Your task to perform on an android device: Open internet settings Image 0: 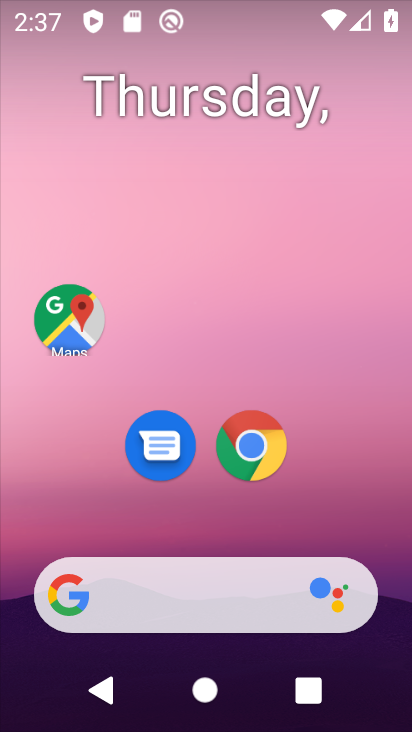
Step 0: drag from (342, 489) to (311, 66)
Your task to perform on an android device: Open internet settings Image 1: 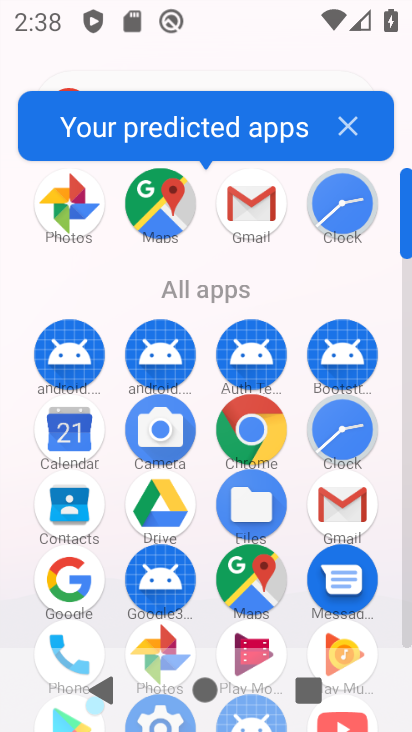
Step 1: drag from (301, 416) to (259, 126)
Your task to perform on an android device: Open internet settings Image 2: 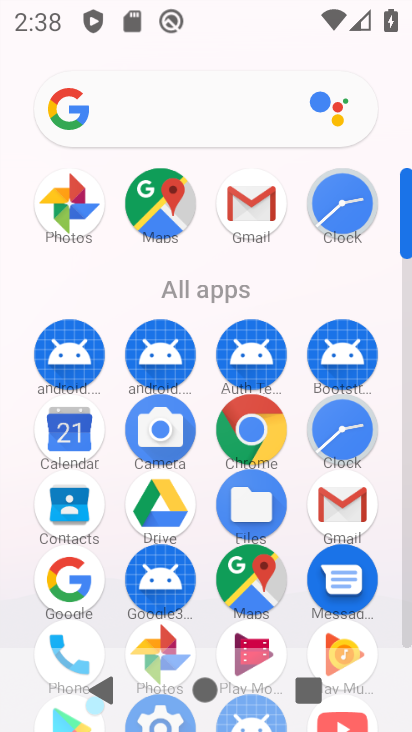
Step 2: drag from (294, 393) to (291, 169)
Your task to perform on an android device: Open internet settings Image 3: 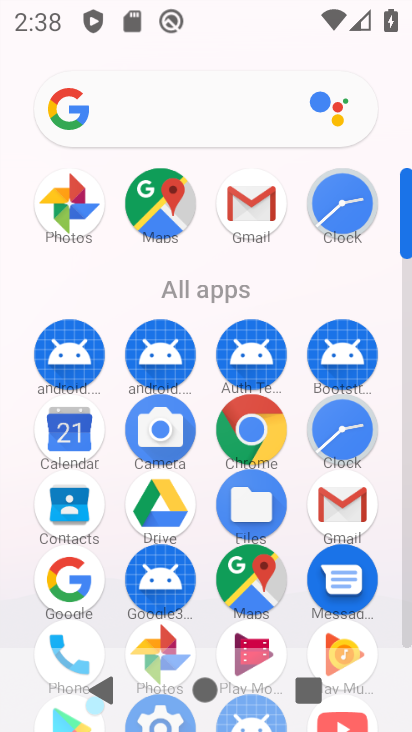
Step 3: drag from (312, 216) to (344, 14)
Your task to perform on an android device: Open internet settings Image 4: 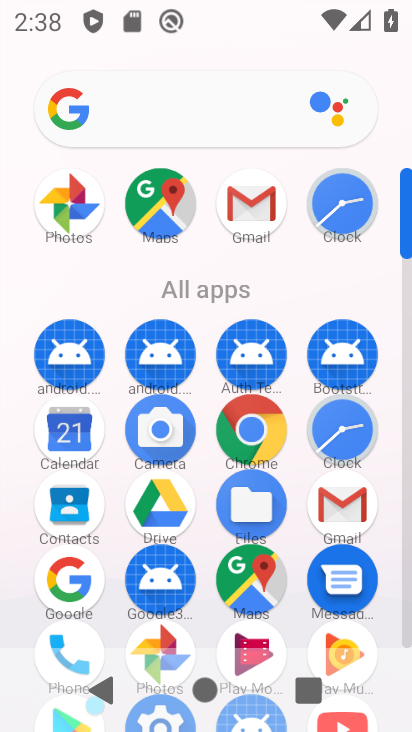
Step 4: drag from (300, 552) to (324, 91)
Your task to perform on an android device: Open internet settings Image 5: 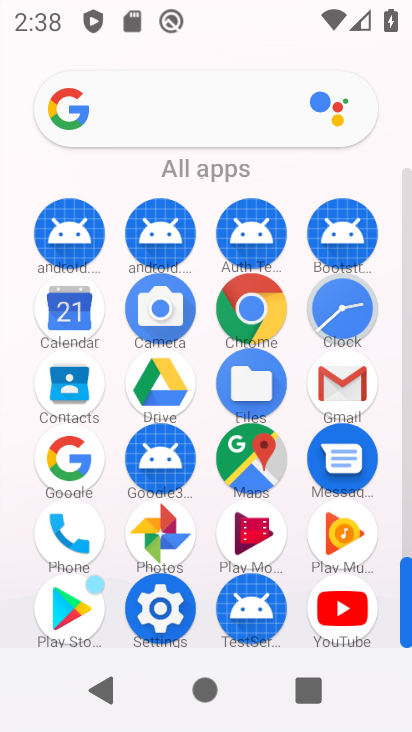
Step 5: click (162, 611)
Your task to perform on an android device: Open internet settings Image 6: 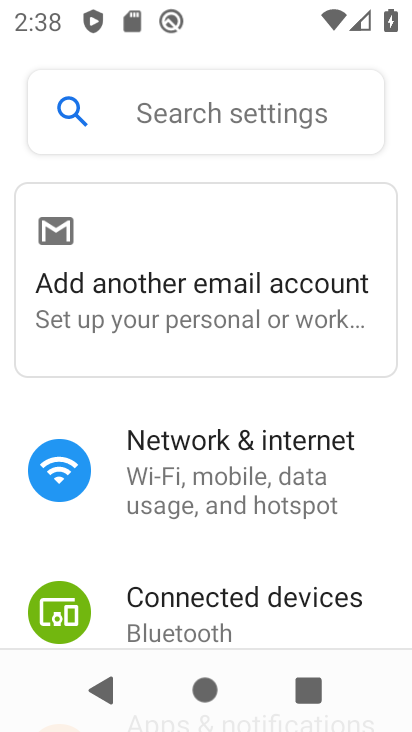
Step 6: click (217, 508)
Your task to perform on an android device: Open internet settings Image 7: 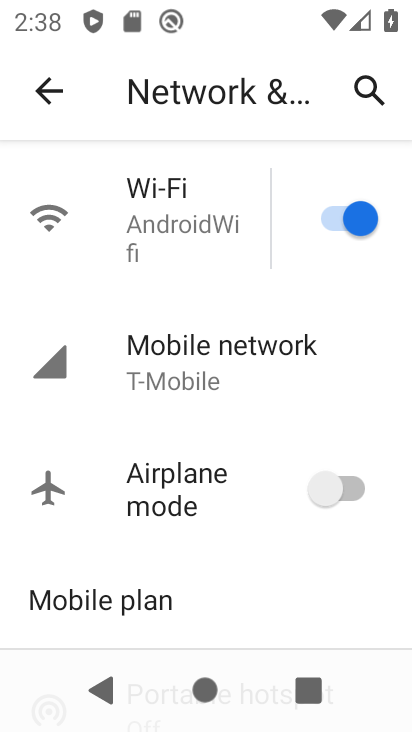
Step 7: click (178, 228)
Your task to perform on an android device: Open internet settings Image 8: 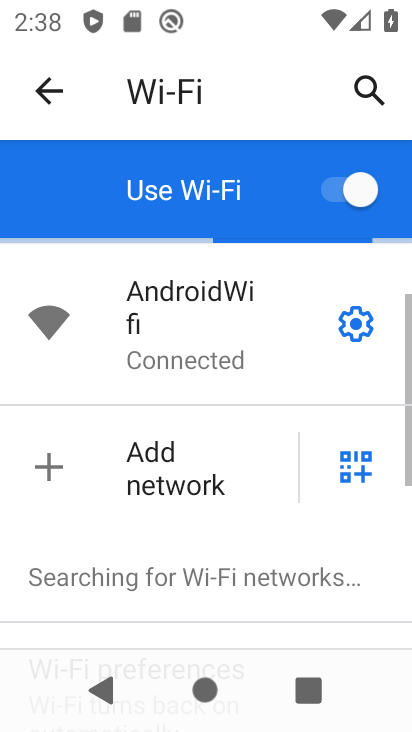
Step 8: click (347, 332)
Your task to perform on an android device: Open internet settings Image 9: 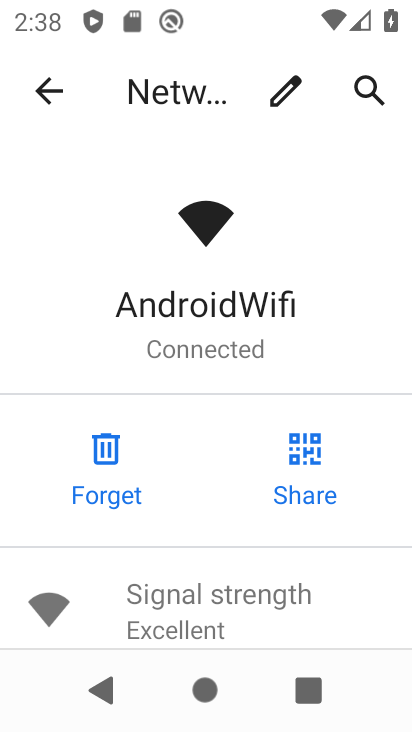
Step 9: task complete